Your task to perform on an android device: Open eBay Image 0: 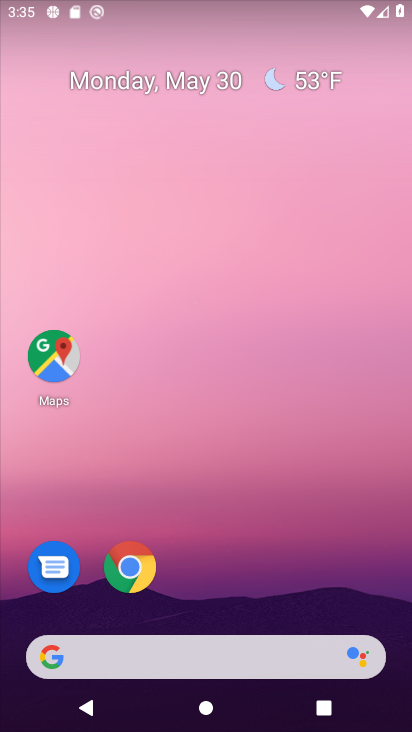
Step 0: drag from (360, 2) to (162, 23)
Your task to perform on an android device: Open eBay Image 1: 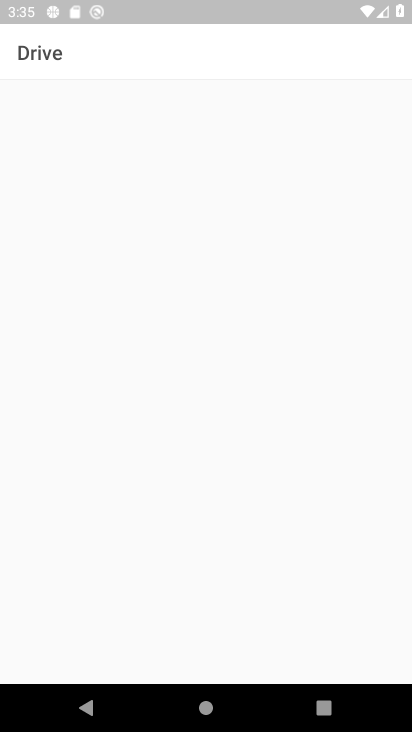
Step 1: press home button
Your task to perform on an android device: Open eBay Image 2: 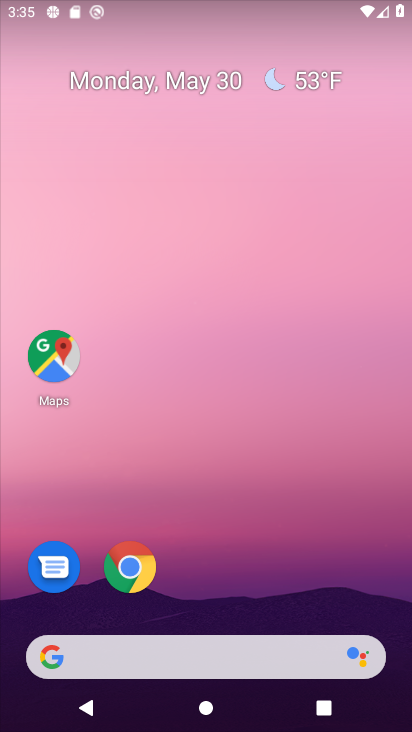
Step 2: drag from (135, 670) to (335, 0)
Your task to perform on an android device: Open eBay Image 3: 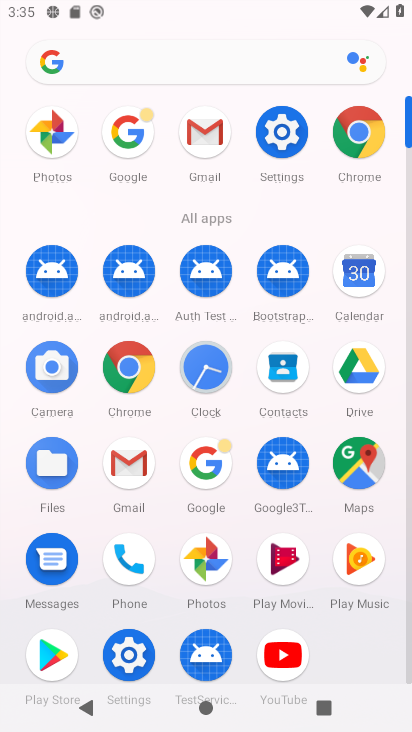
Step 3: click (131, 335)
Your task to perform on an android device: Open eBay Image 4: 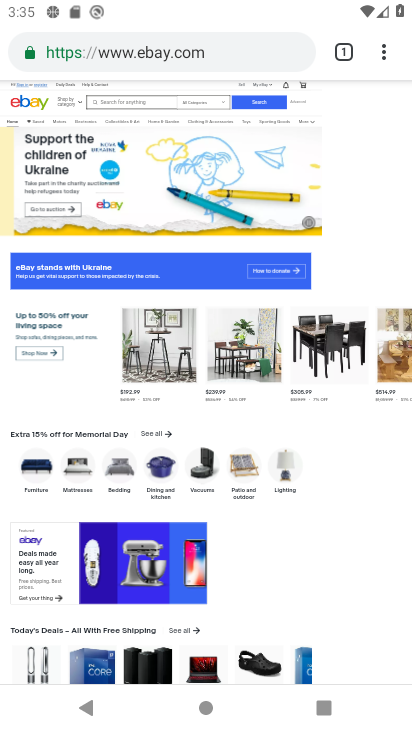
Step 4: task complete